Your task to perform on an android device: Open Chrome and go to settings Image 0: 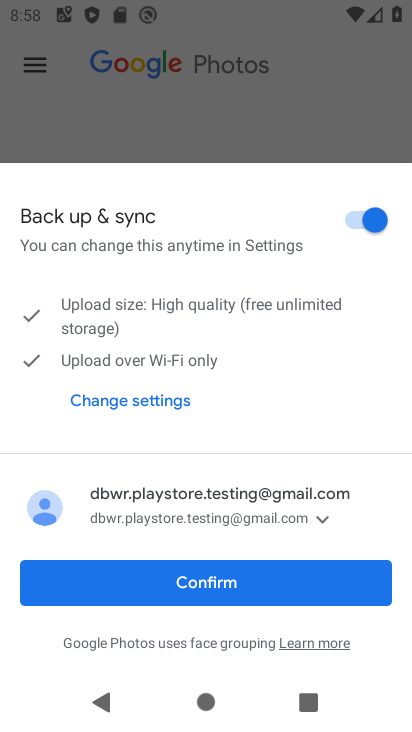
Step 0: click (250, 590)
Your task to perform on an android device: Open Chrome and go to settings Image 1: 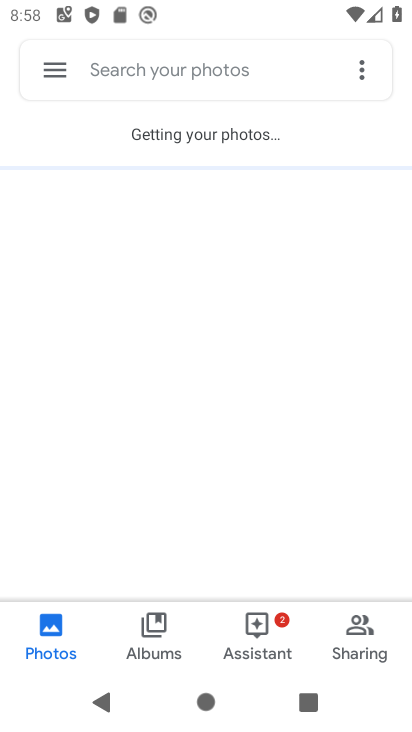
Step 1: press home button
Your task to perform on an android device: Open Chrome and go to settings Image 2: 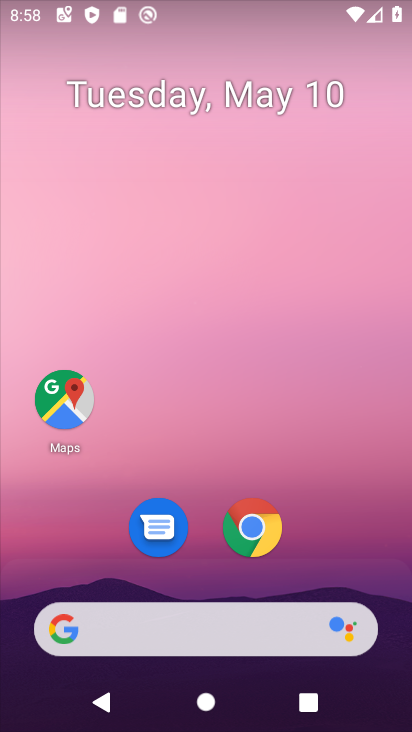
Step 2: click (262, 546)
Your task to perform on an android device: Open Chrome and go to settings Image 3: 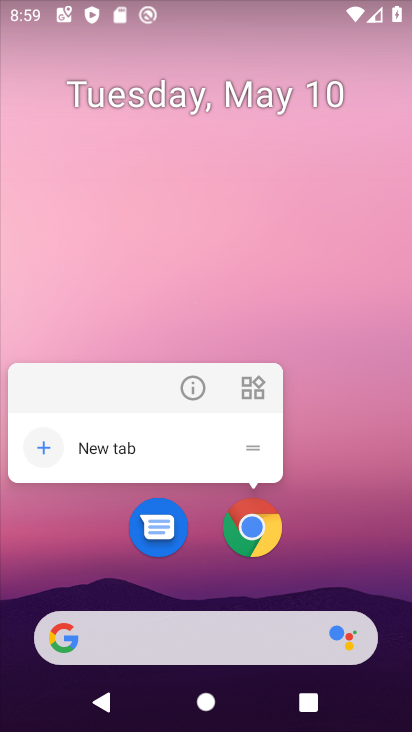
Step 3: click (261, 545)
Your task to perform on an android device: Open Chrome and go to settings Image 4: 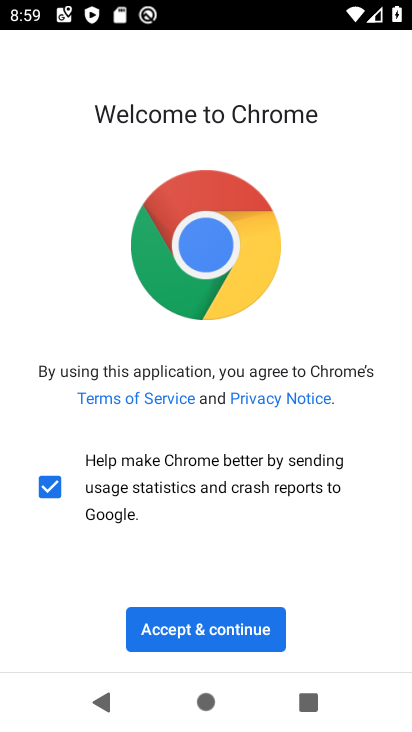
Step 4: click (221, 629)
Your task to perform on an android device: Open Chrome and go to settings Image 5: 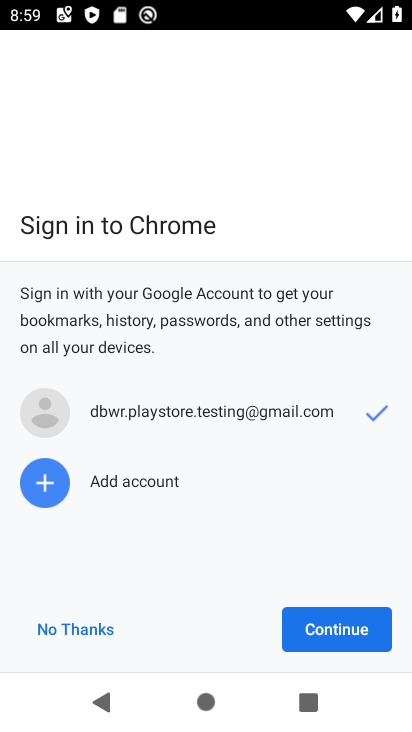
Step 5: click (317, 638)
Your task to perform on an android device: Open Chrome and go to settings Image 6: 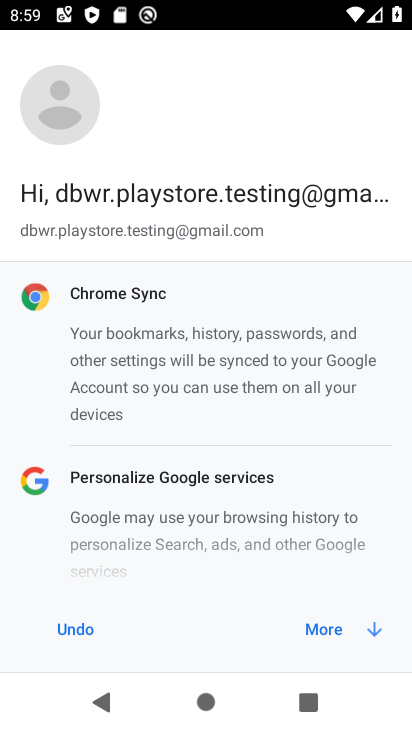
Step 6: click (327, 626)
Your task to perform on an android device: Open Chrome and go to settings Image 7: 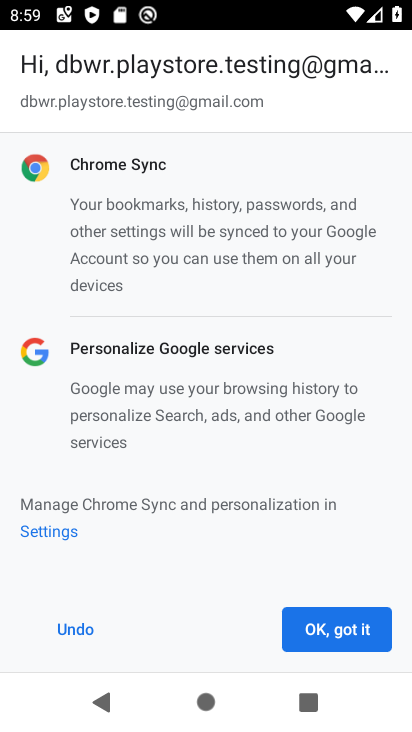
Step 7: click (327, 626)
Your task to perform on an android device: Open Chrome and go to settings Image 8: 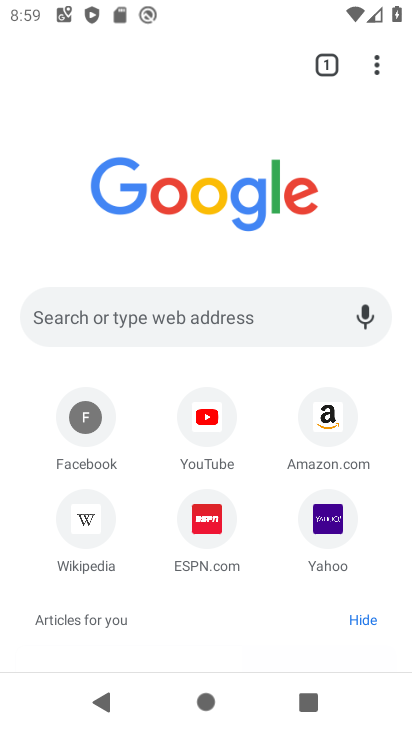
Step 8: click (374, 57)
Your task to perform on an android device: Open Chrome and go to settings Image 9: 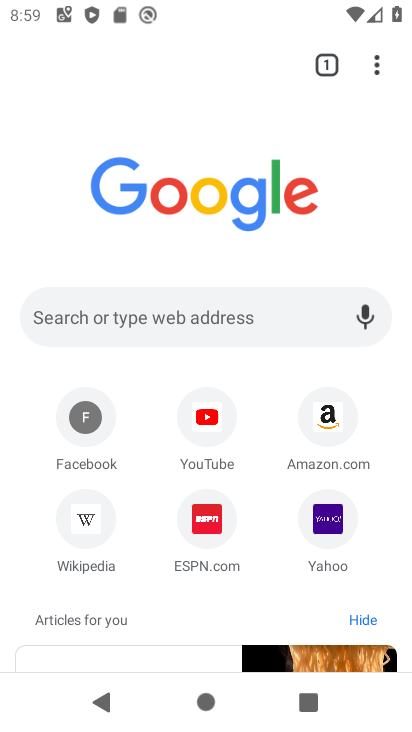
Step 9: click (378, 75)
Your task to perform on an android device: Open Chrome and go to settings Image 10: 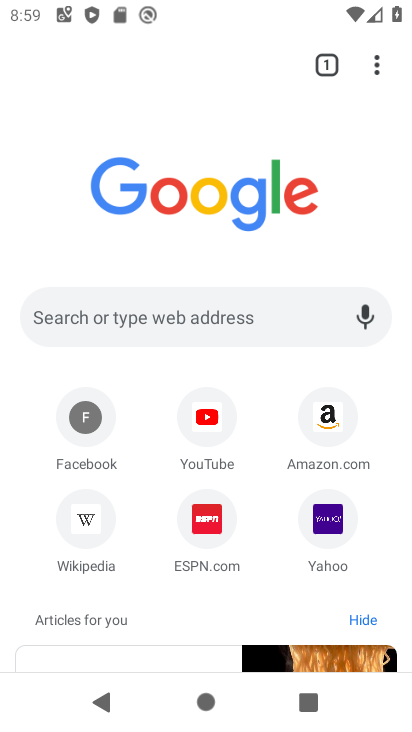
Step 10: click (378, 75)
Your task to perform on an android device: Open Chrome and go to settings Image 11: 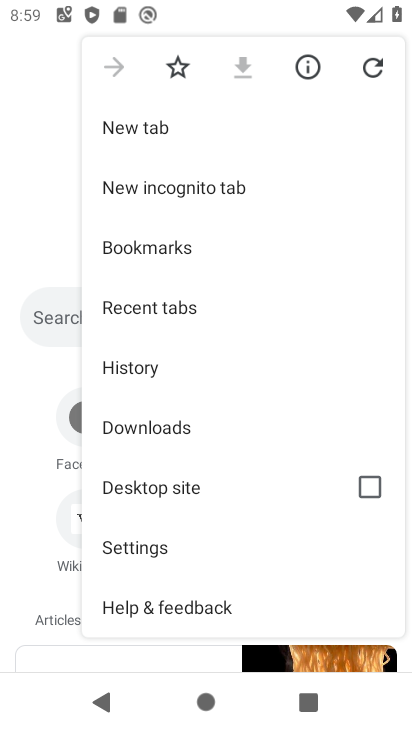
Step 11: click (142, 552)
Your task to perform on an android device: Open Chrome and go to settings Image 12: 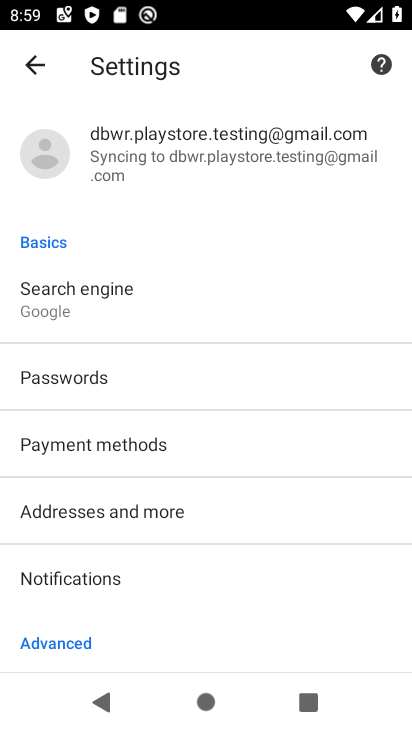
Step 12: task complete